Your task to perform on an android device: change the clock display to show seconds Image 0: 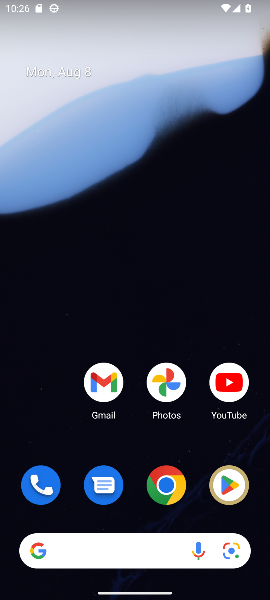
Step 0: drag from (183, 441) to (175, 14)
Your task to perform on an android device: change the clock display to show seconds Image 1: 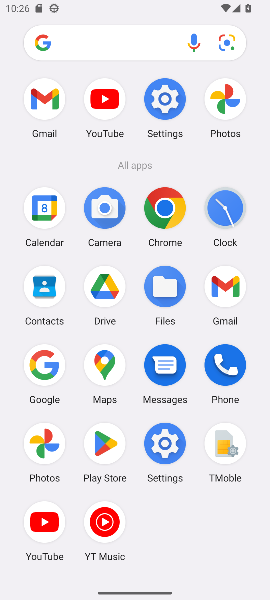
Step 1: click (220, 191)
Your task to perform on an android device: change the clock display to show seconds Image 2: 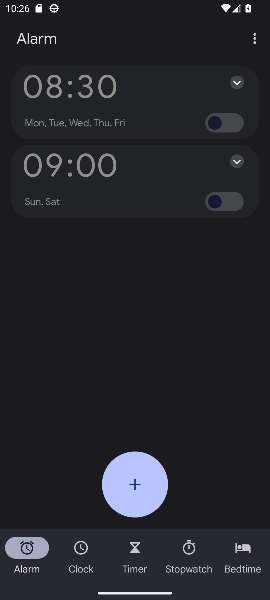
Step 2: click (257, 44)
Your task to perform on an android device: change the clock display to show seconds Image 3: 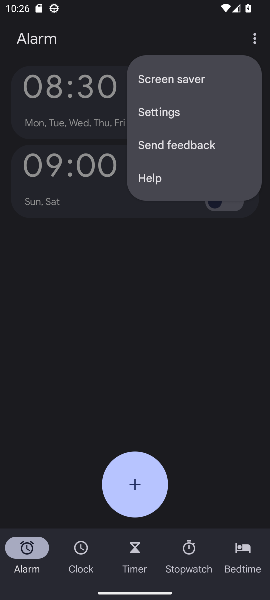
Step 3: click (157, 116)
Your task to perform on an android device: change the clock display to show seconds Image 4: 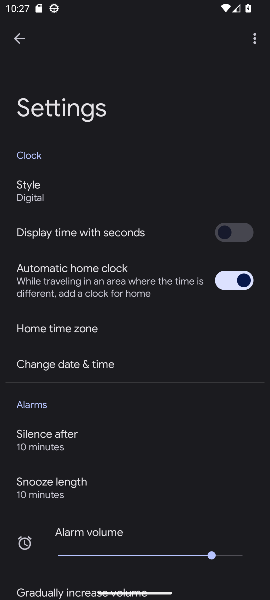
Step 4: drag from (161, 433) to (195, 143)
Your task to perform on an android device: change the clock display to show seconds Image 5: 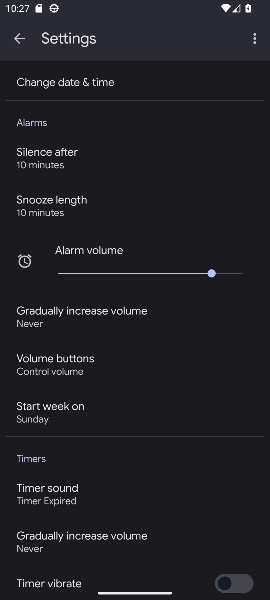
Step 5: drag from (174, 276) to (192, 599)
Your task to perform on an android device: change the clock display to show seconds Image 6: 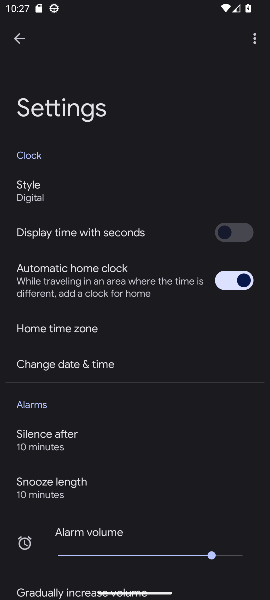
Step 6: click (217, 231)
Your task to perform on an android device: change the clock display to show seconds Image 7: 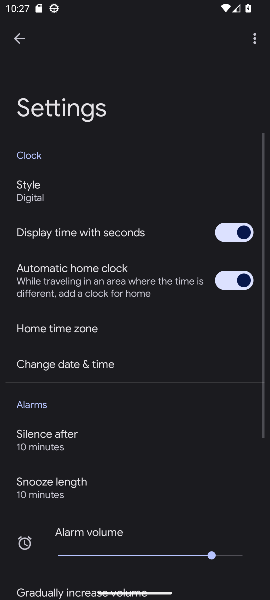
Step 7: task complete